Your task to perform on an android device: open app "PlayWell" (install if not already installed), go to login, and select forgot password Image 0: 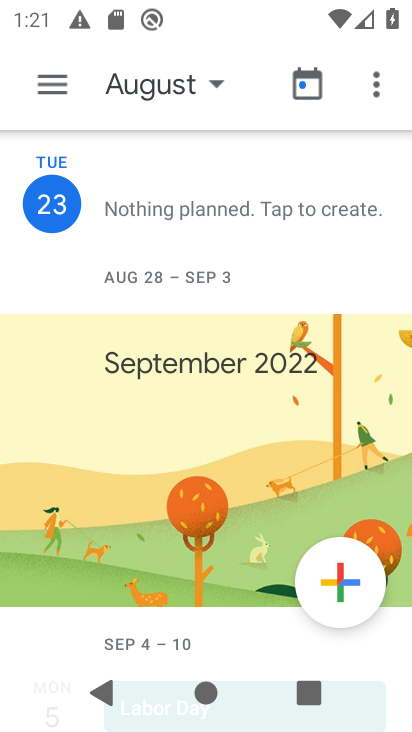
Step 0: press home button
Your task to perform on an android device: open app "PlayWell" (install if not already installed), go to login, and select forgot password Image 1: 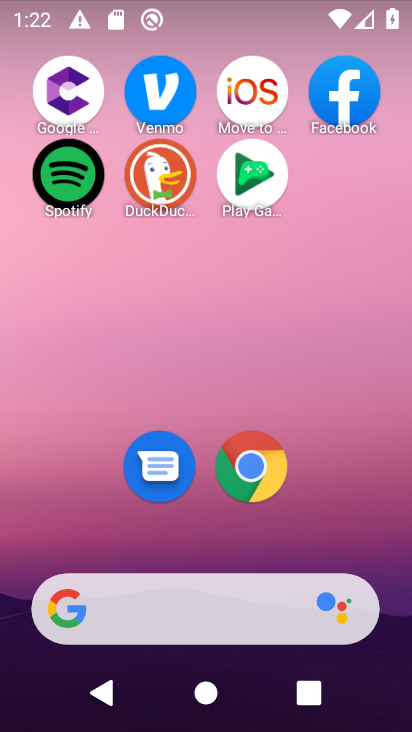
Step 1: drag from (227, 544) to (267, 100)
Your task to perform on an android device: open app "PlayWell" (install if not already installed), go to login, and select forgot password Image 2: 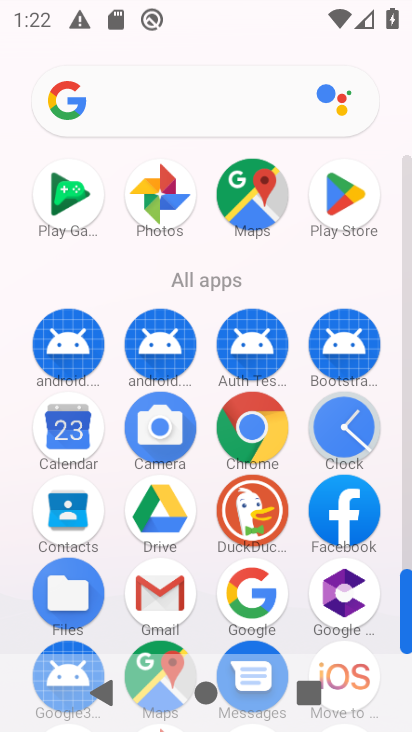
Step 2: click (360, 184)
Your task to perform on an android device: open app "PlayWell" (install if not already installed), go to login, and select forgot password Image 3: 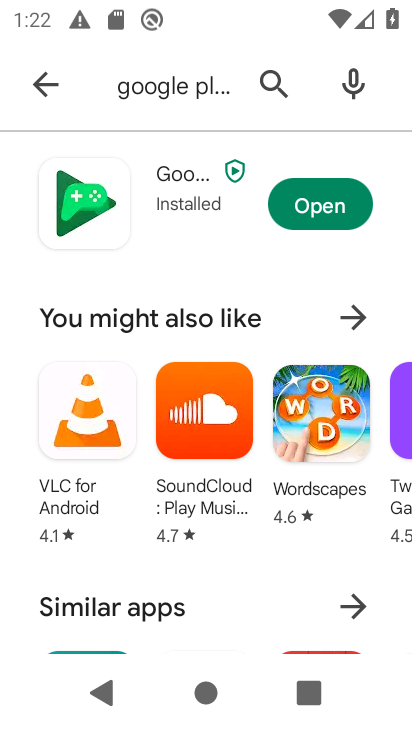
Step 3: click (48, 74)
Your task to perform on an android device: open app "PlayWell" (install if not already installed), go to login, and select forgot password Image 4: 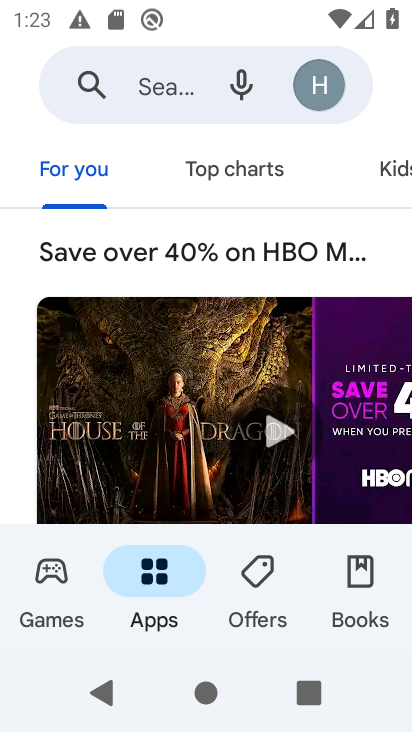
Step 4: click (171, 83)
Your task to perform on an android device: open app "PlayWell" (install if not already installed), go to login, and select forgot password Image 5: 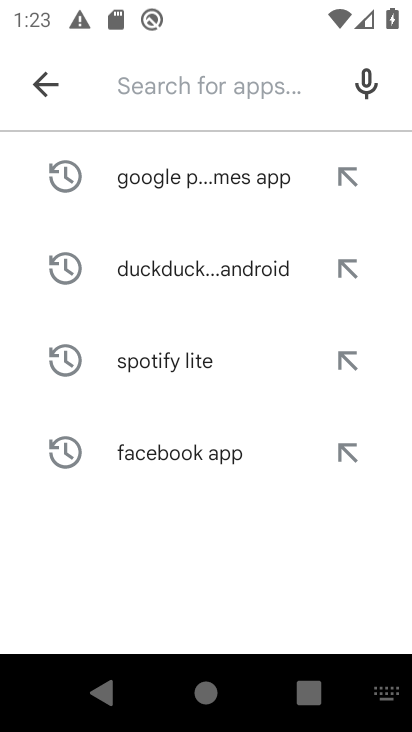
Step 5: type "PlayWell "
Your task to perform on an android device: open app "PlayWell" (install if not already installed), go to login, and select forgot password Image 6: 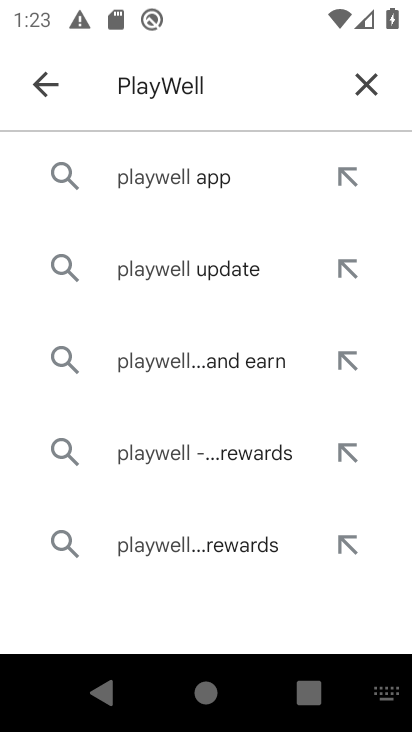
Step 6: click (148, 164)
Your task to perform on an android device: open app "PlayWell" (install if not already installed), go to login, and select forgot password Image 7: 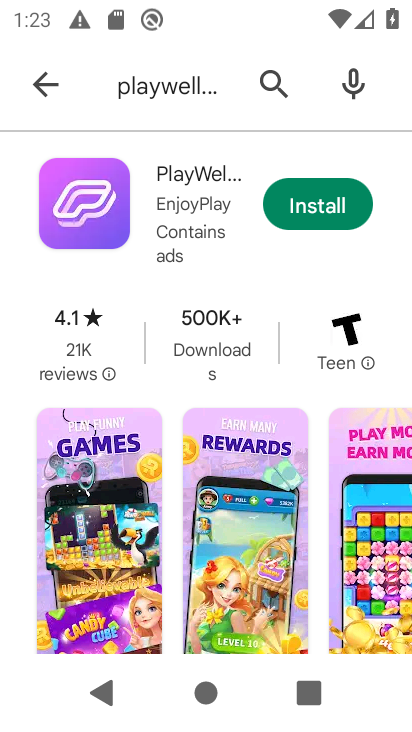
Step 7: click (296, 215)
Your task to perform on an android device: open app "PlayWell" (install if not already installed), go to login, and select forgot password Image 8: 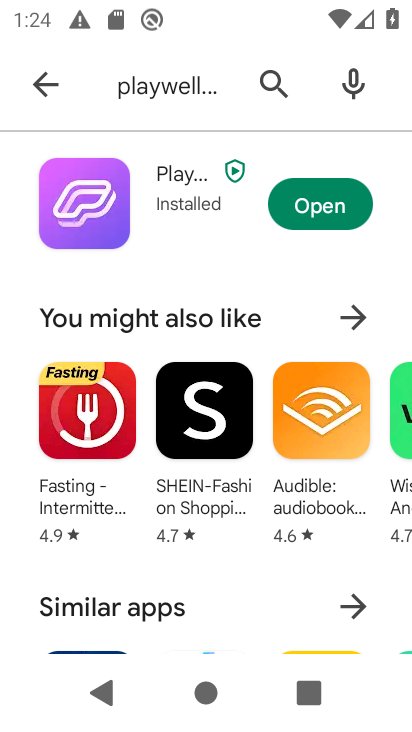
Step 8: click (303, 186)
Your task to perform on an android device: open app "PlayWell" (install if not already installed), go to login, and select forgot password Image 9: 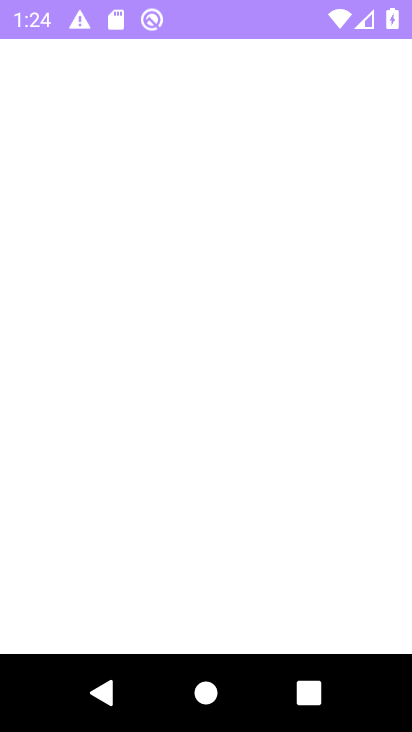
Step 9: task complete